Your task to perform on an android device: Open CNN.com Image 0: 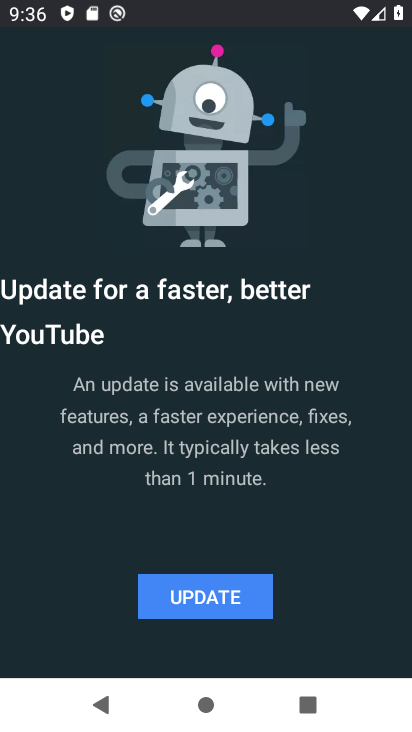
Step 0: press back button
Your task to perform on an android device: Open CNN.com Image 1: 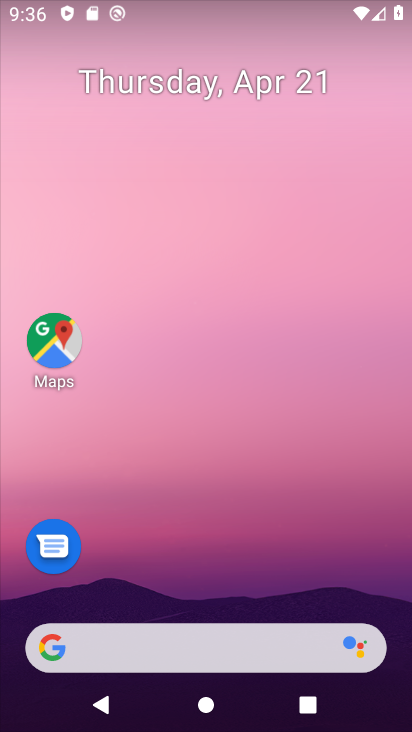
Step 1: drag from (151, 621) to (216, 46)
Your task to perform on an android device: Open CNN.com Image 2: 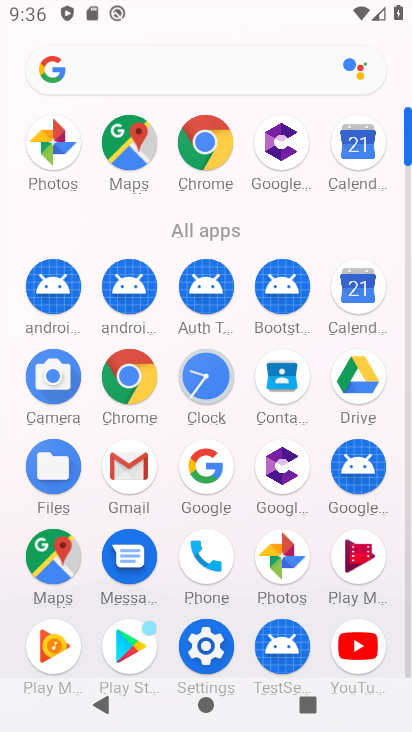
Step 2: click (144, 381)
Your task to perform on an android device: Open CNN.com Image 3: 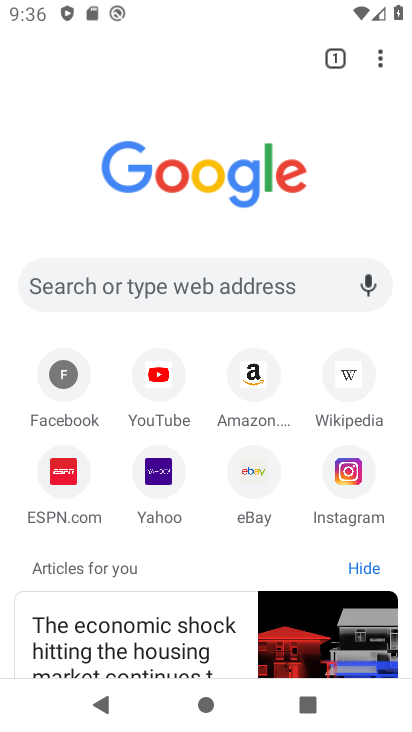
Step 3: click (185, 300)
Your task to perform on an android device: Open CNN.com Image 4: 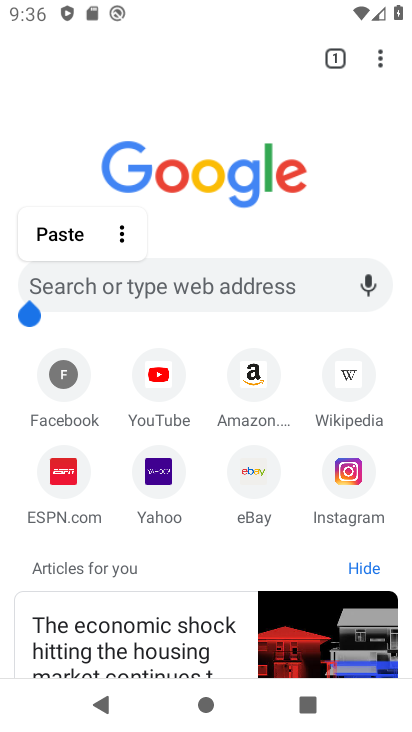
Step 4: click (187, 293)
Your task to perform on an android device: Open CNN.com Image 5: 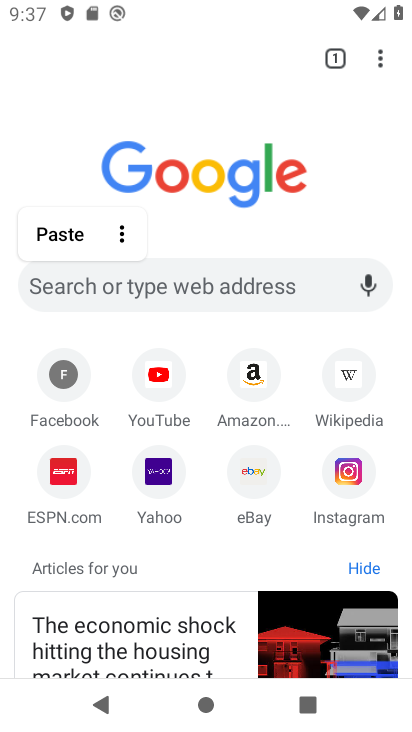
Step 5: type "CNN.com"
Your task to perform on an android device: Open CNN.com Image 6: 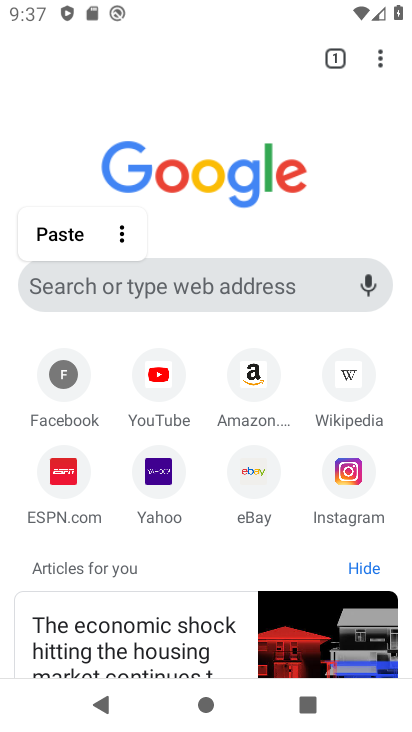
Step 6: click (264, 289)
Your task to perform on an android device: Open CNN.com Image 7: 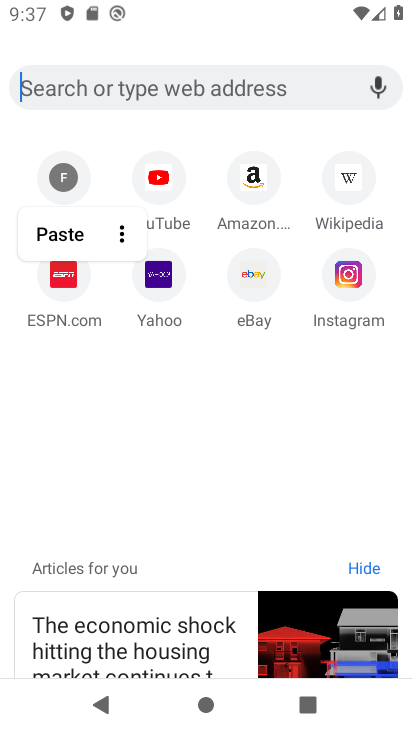
Step 7: click (254, 299)
Your task to perform on an android device: Open CNN.com Image 8: 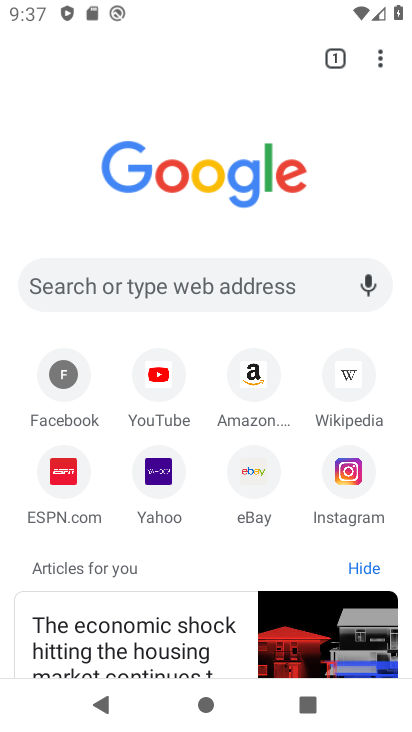
Step 8: click (229, 283)
Your task to perform on an android device: Open CNN.com Image 9: 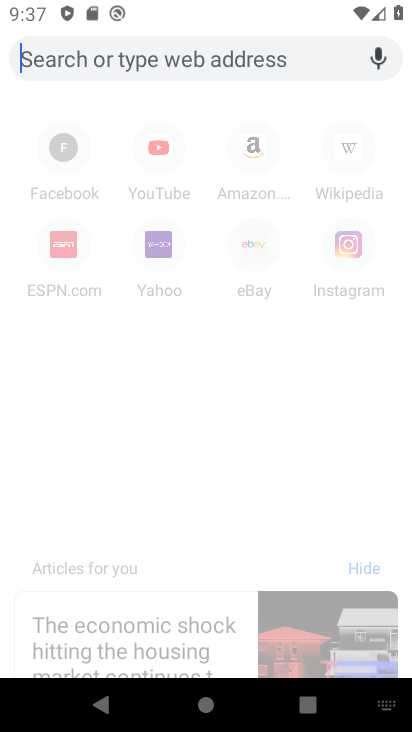
Step 9: type "CNN.com"
Your task to perform on an android device: Open CNN.com Image 10: 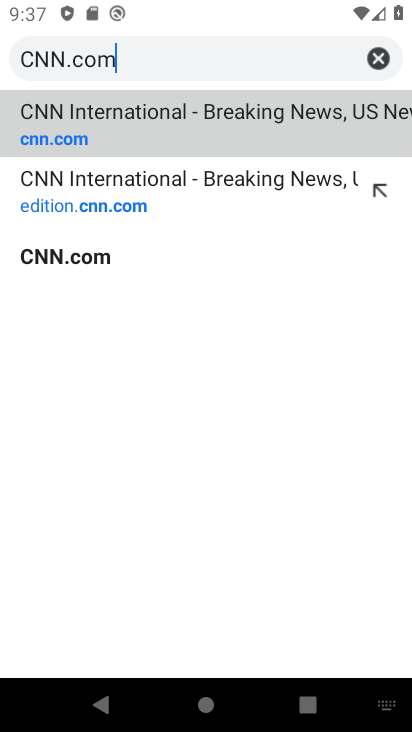
Step 10: click (101, 121)
Your task to perform on an android device: Open CNN.com Image 11: 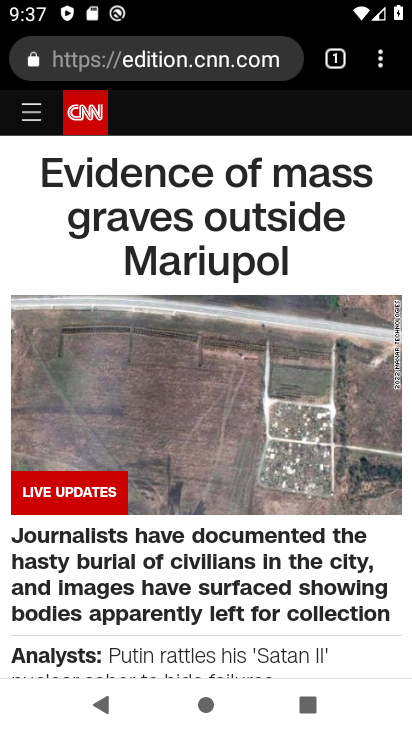
Step 11: task complete